Your task to perform on an android device: toggle javascript in the chrome app Image 0: 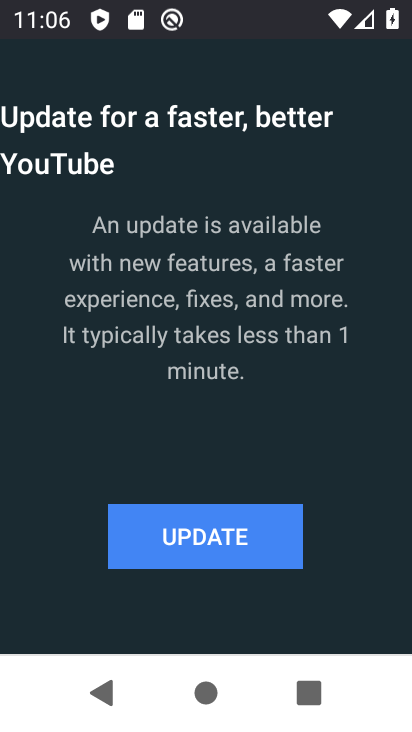
Step 0: press back button
Your task to perform on an android device: toggle javascript in the chrome app Image 1: 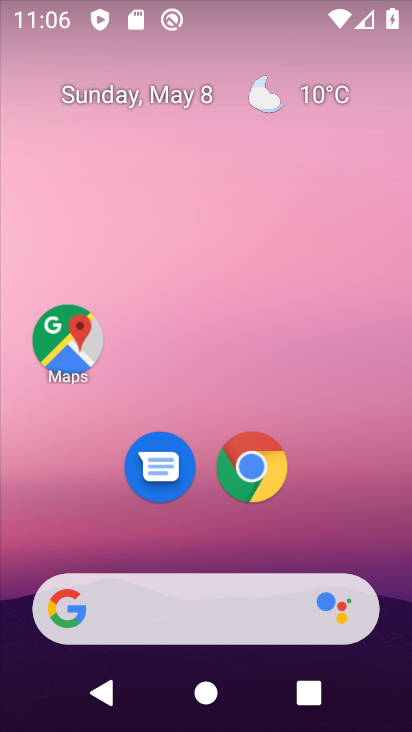
Step 1: click (275, 469)
Your task to perform on an android device: toggle javascript in the chrome app Image 2: 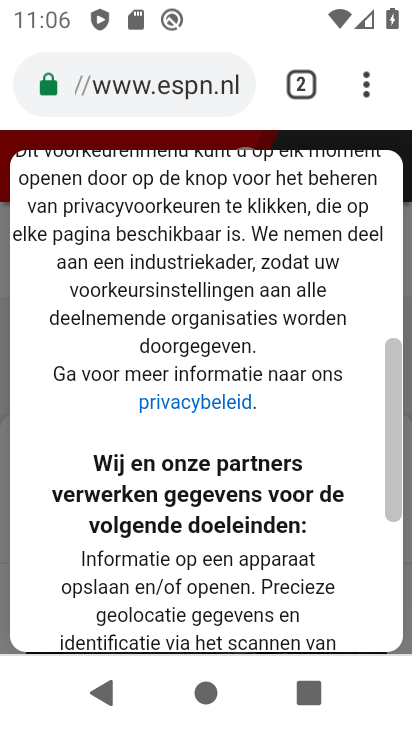
Step 2: drag from (376, 106) to (197, 524)
Your task to perform on an android device: toggle javascript in the chrome app Image 3: 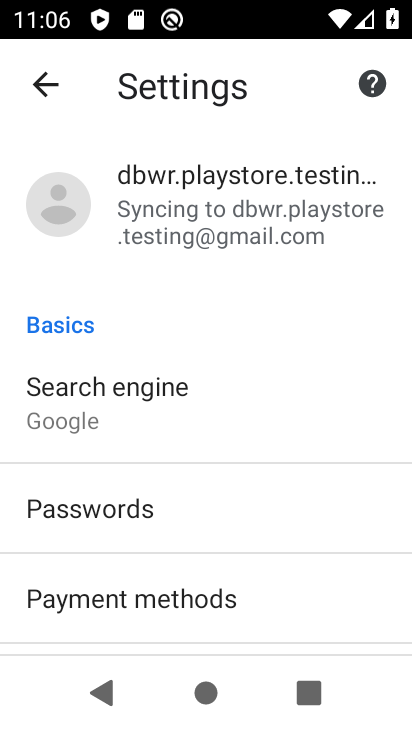
Step 3: drag from (293, 595) to (273, 106)
Your task to perform on an android device: toggle javascript in the chrome app Image 4: 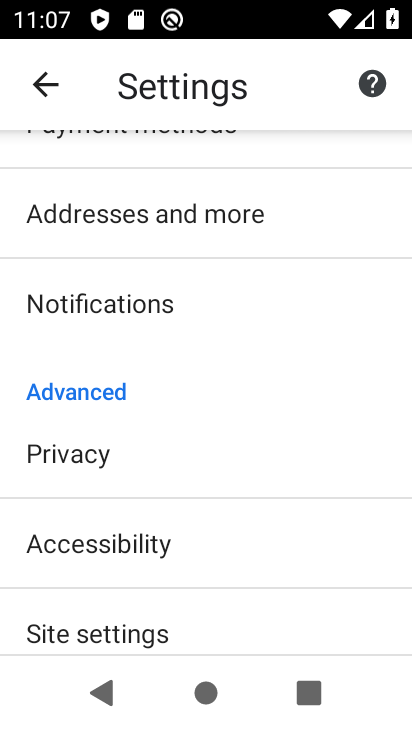
Step 4: drag from (270, 593) to (235, 130)
Your task to perform on an android device: toggle javascript in the chrome app Image 5: 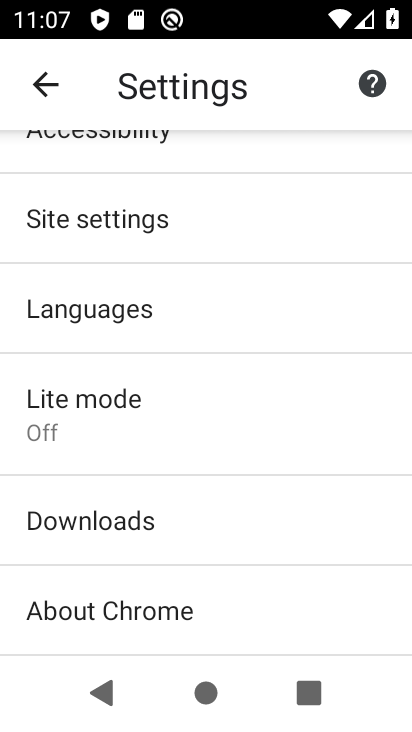
Step 5: click (199, 236)
Your task to perform on an android device: toggle javascript in the chrome app Image 6: 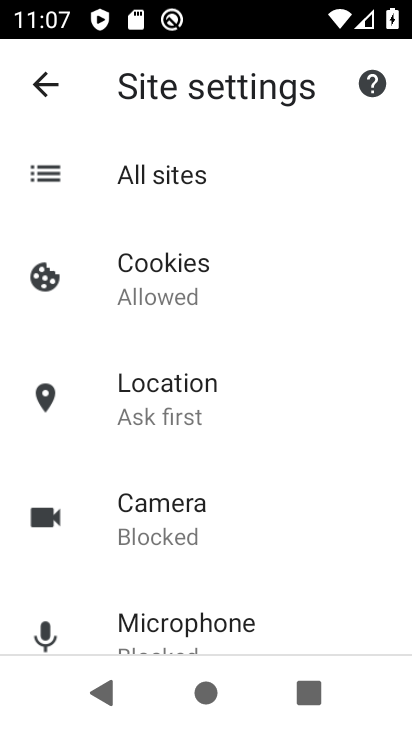
Step 6: drag from (259, 602) to (230, 247)
Your task to perform on an android device: toggle javascript in the chrome app Image 7: 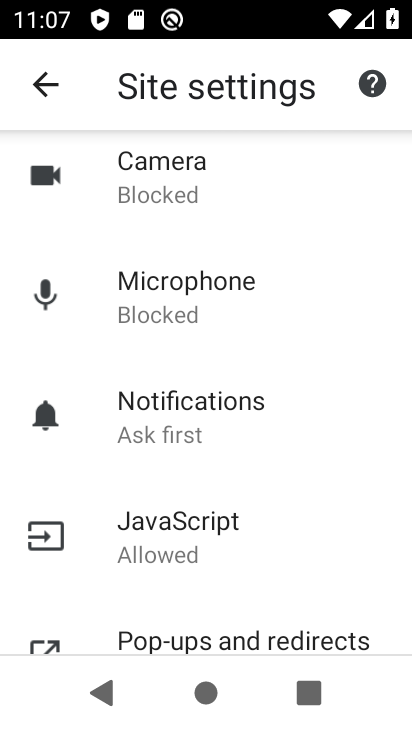
Step 7: click (266, 523)
Your task to perform on an android device: toggle javascript in the chrome app Image 8: 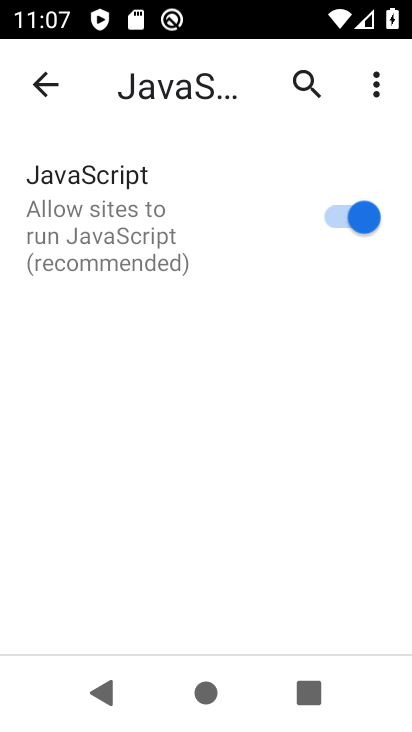
Step 8: click (354, 216)
Your task to perform on an android device: toggle javascript in the chrome app Image 9: 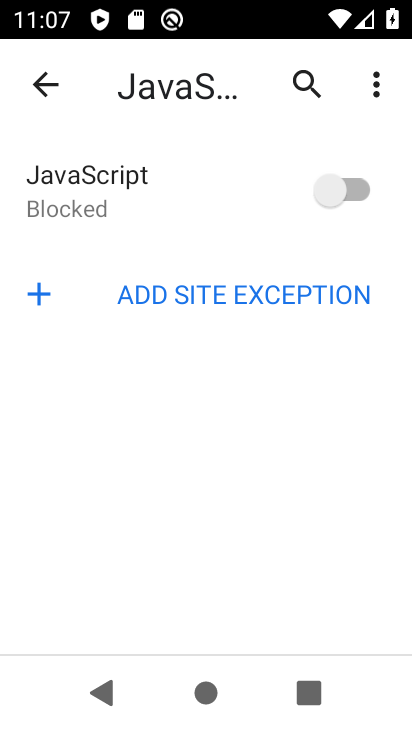
Step 9: task complete